Your task to perform on an android device: empty trash in google photos Image 0: 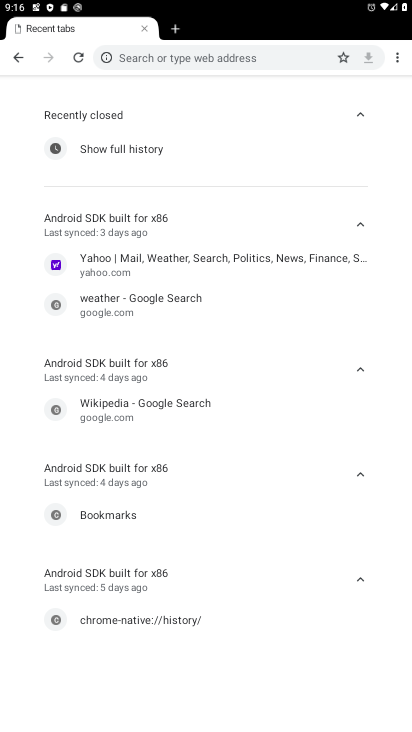
Step 0: press home button
Your task to perform on an android device: empty trash in google photos Image 1: 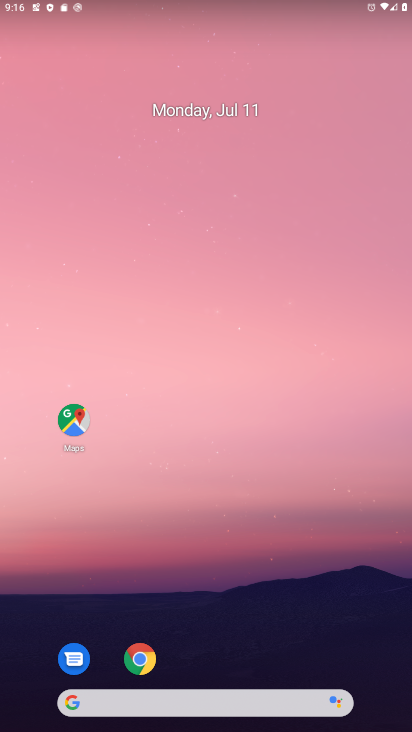
Step 1: drag from (205, 593) to (165, 155)
Your task to perform on an android device: empty trash in google photos Image 2: 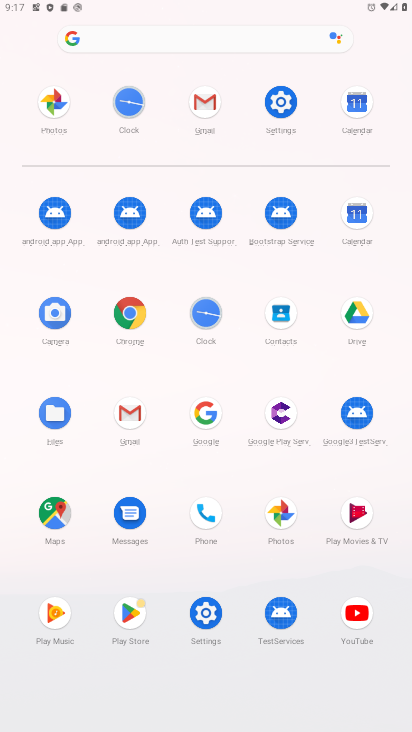
Step 2: click (281, 513)
Your task to perform on an android device: empty trash in google photos Image 3: 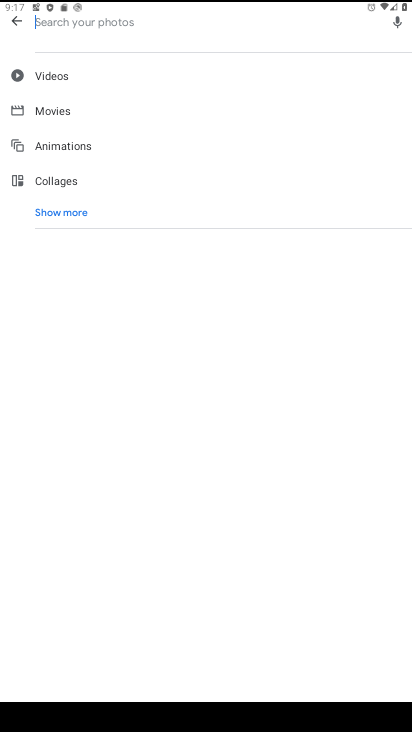
Step 3: click (17, 19)
Your task to perform on an android device: empty trash in google photos Image 4: 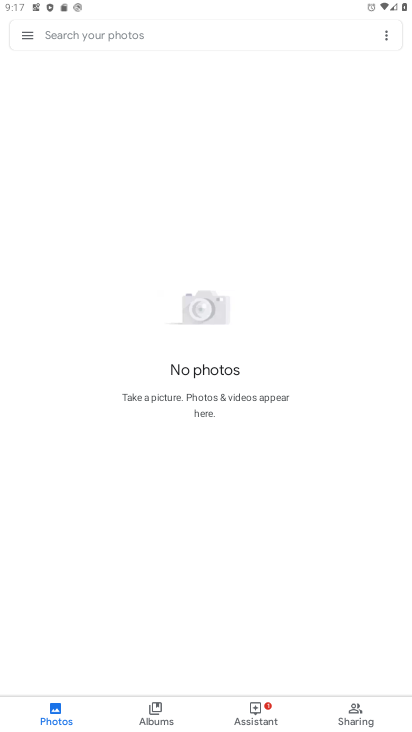
Step 4: click (24, 36)
Your task to perform on an android device: empty trash in google photos Image 5: 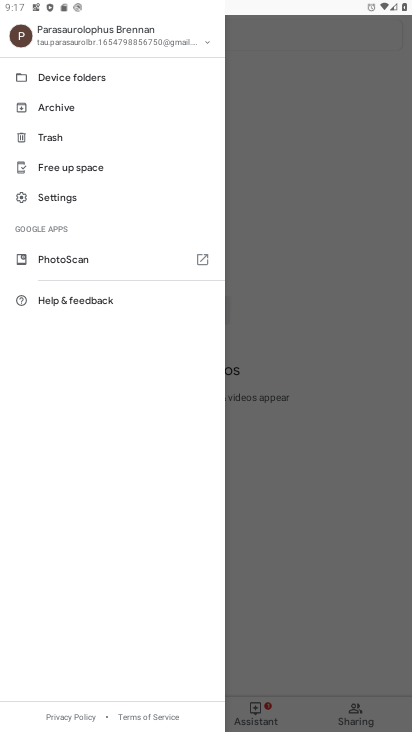
Step 5: click (45, 135)
Your task to perform on an android device: empty trash in google photos Image 6: 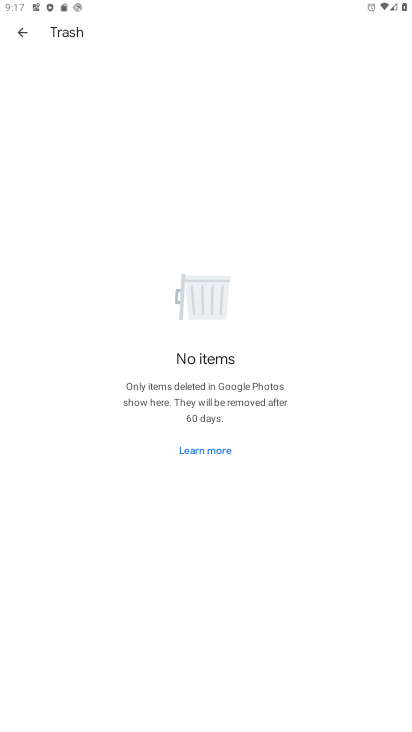
Step 6: task complete